Your task to perform on an android device: change timer sound Image 0: 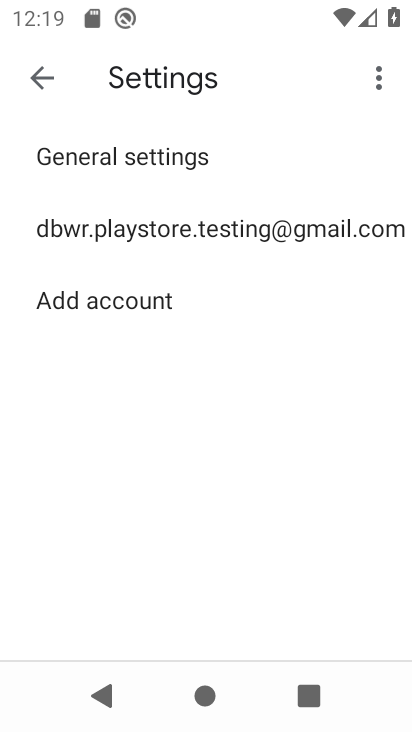
Step 0: press back button
Your task to perform on an android device: change timer sound Image 1: 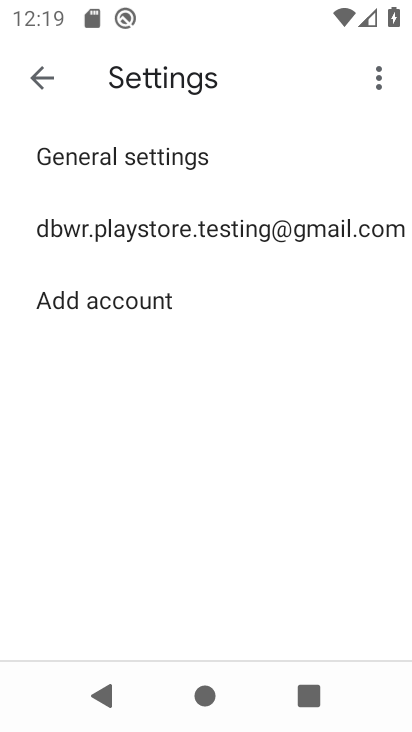
Step 1: press back button
Your task to perform on an android device: change timer sound Image 2: 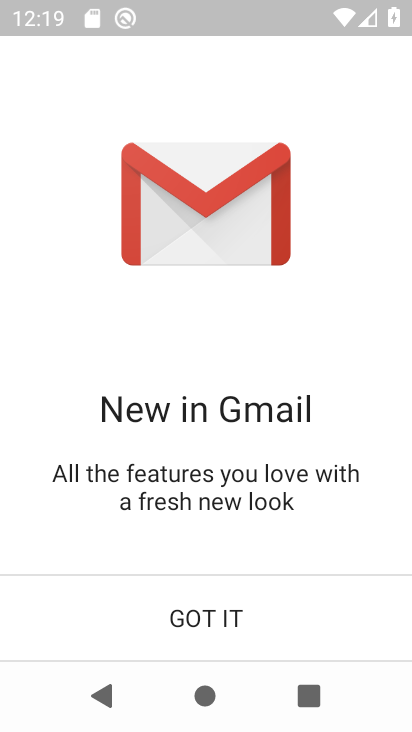
Step 2: click (212, 615)
Your task to perform on an android device: change timer sound Image 3: 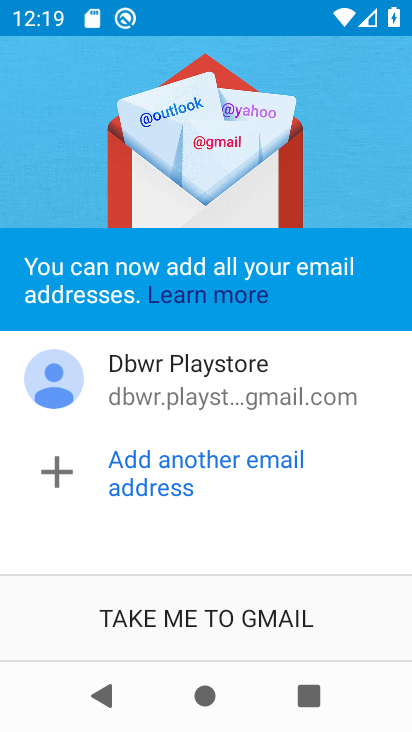
Step 3: click (207, 619)
Your task to perform on an android device: change timer sound Image 4: 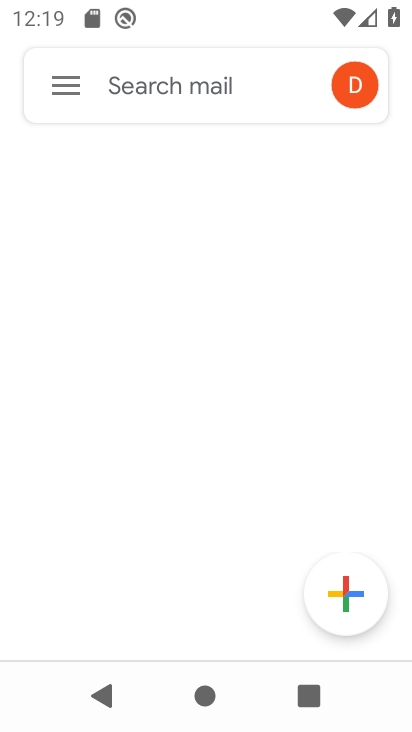
Step 4: press home button
Your task to perform on an android device: change timer sound Image 5: 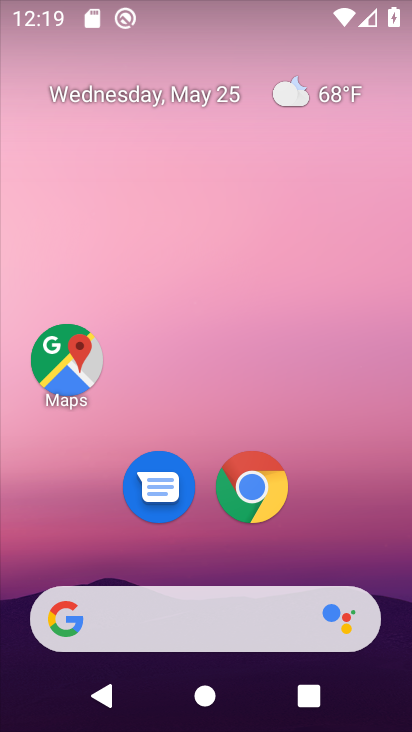
Step 5: drag from (173, 564) to (227, 108)
Your task to perform on an android device: change timer sound Image 6: 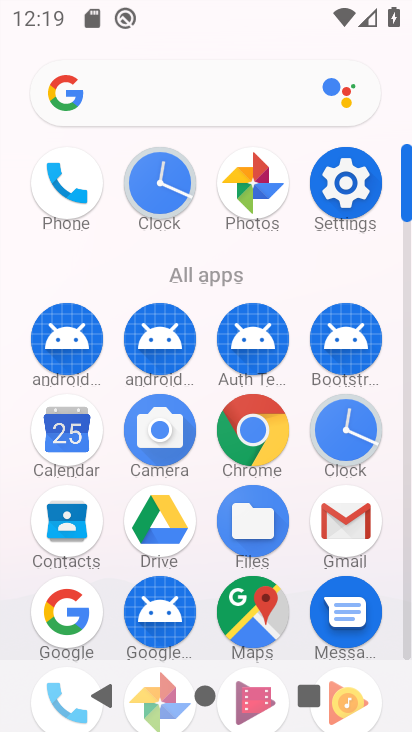
Step 6: click (345, 431)
Your task to perform on an android device: change timer sound Image 7: 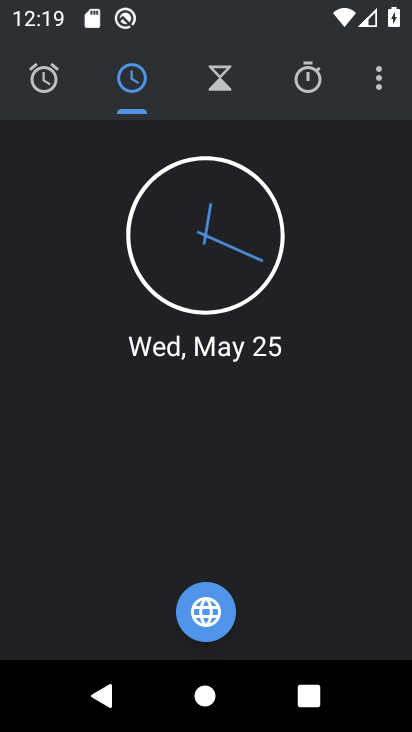
Step 7: click (369, 76)
Your task to perform on an android device: change timer sound Image 8: 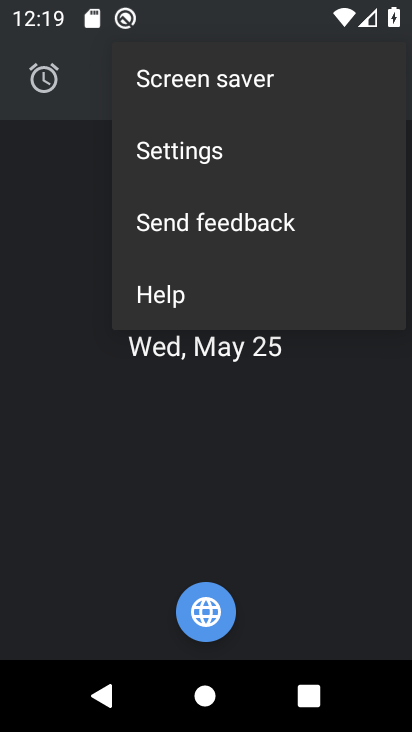
Step 8: click (189, 148)
Your task to perform on an android device: change timer sound Image 9: 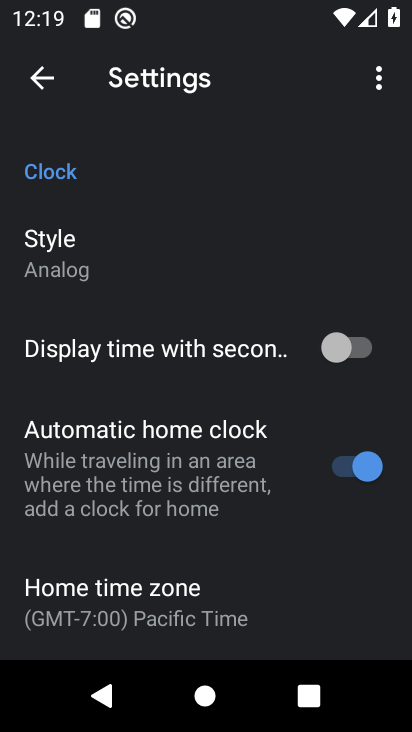
Step 9: drag from (119, 588) to (232, 76)
Your task to perform on an android device: change timer sound Image 10: 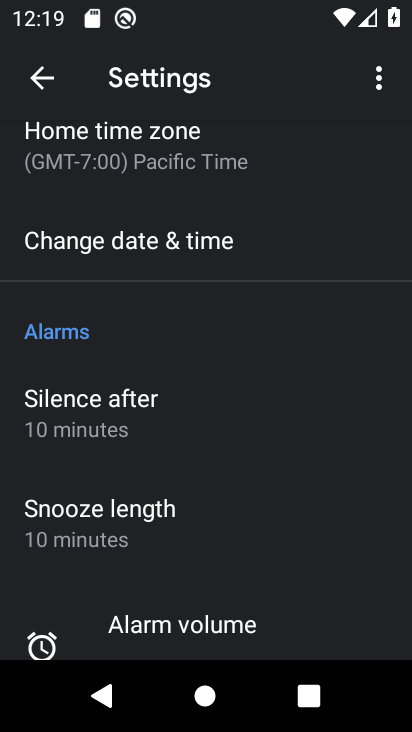
Step 10: drag from (164, 520) to (226, 95)
Your task to perform on an android device: change timer sound Image 11: 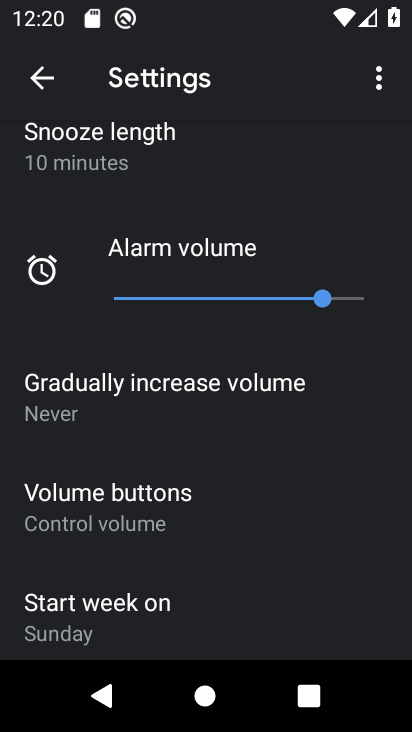
Step 11: drag from (123, 586) to (198, 144)
Your task to perform on an android device: change timer sound Image 12: 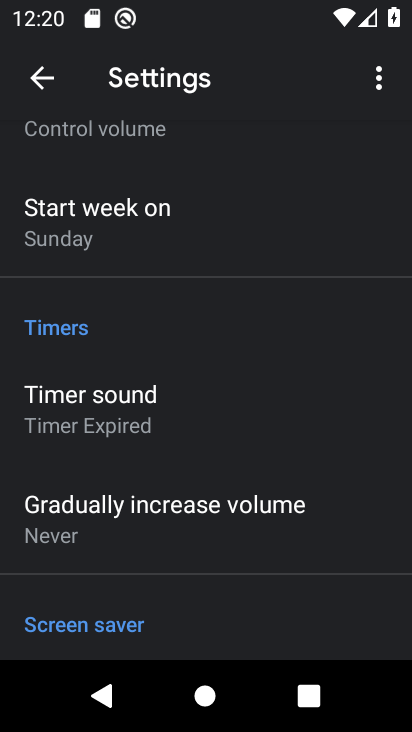
Step 12: drag from (155, 546) to (235, 106)
Your task to perform on an android device: change timer sound Image 13: 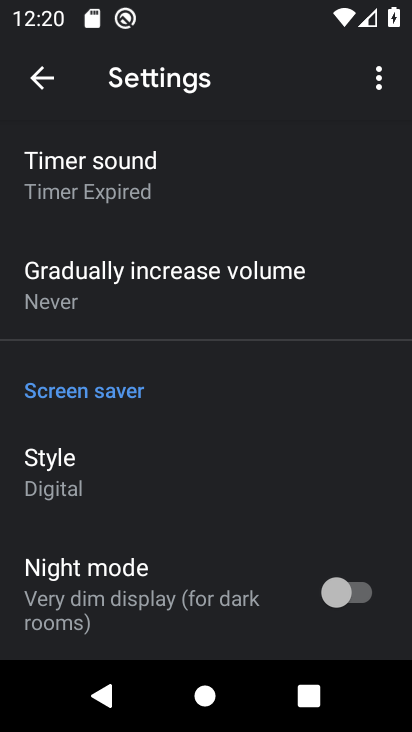
Step 13: drag from (164, 555) to (230, 79)
Your task to perform on an android device: change timer sound Image 14: 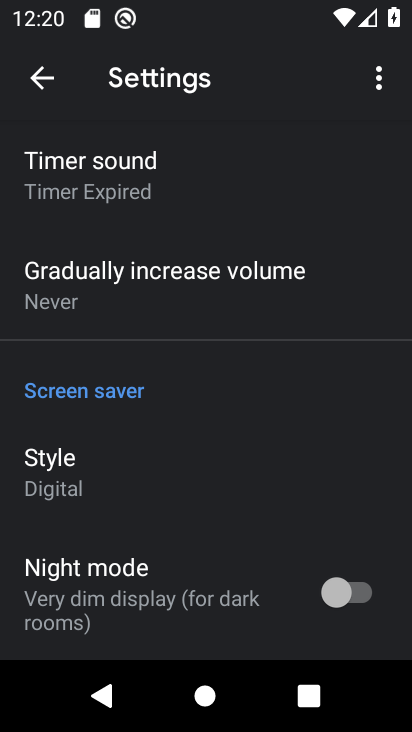
Step 14: drag from (180, 439) to (188, 189)
Your task to perform on an android device: change timer sound Image 15: 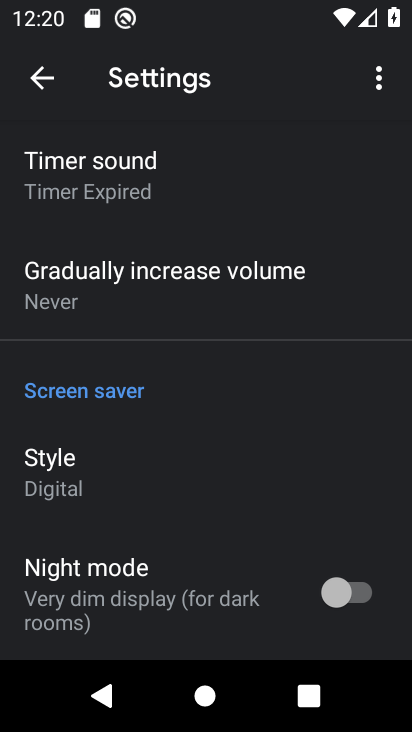
Step 15: click (171, 180)
Your task to perform on an android device: change timer sound Image 16: 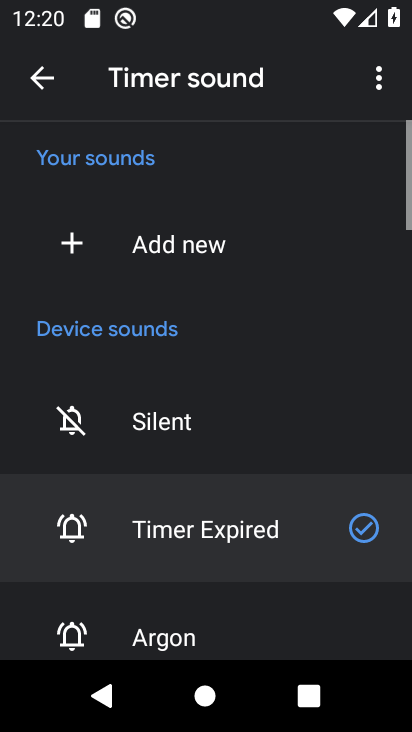
Step 16: click (163, 638)
Your task to perform on an android device: change timer sound Image 17: 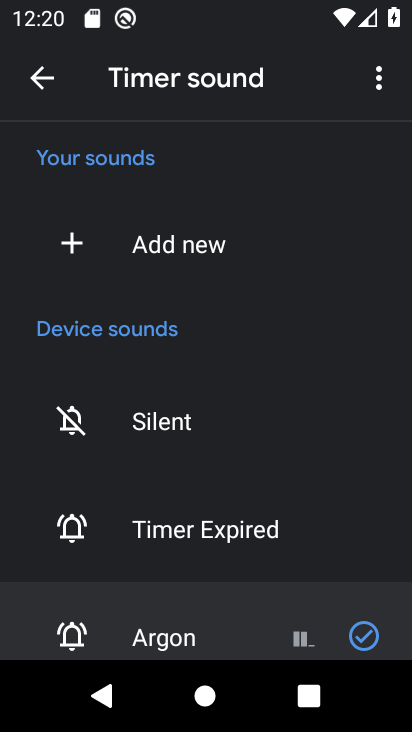
Step 17: task complete